Your task to perform on an android device: Open Yahoo.com Image 0: 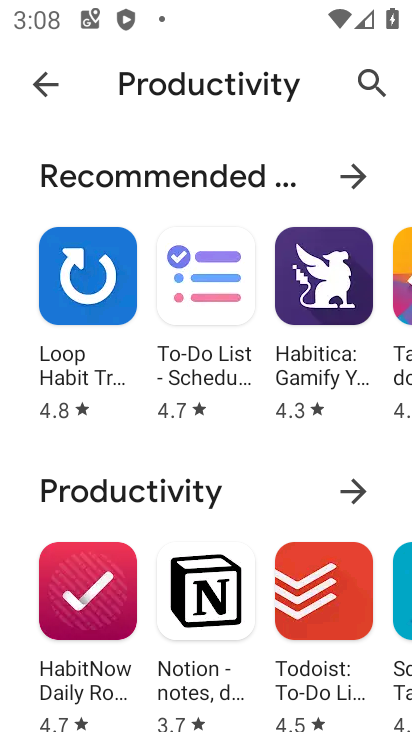
Step 0: press home button
Your task to perform on an android device: Open Yahoo.com Image 1: 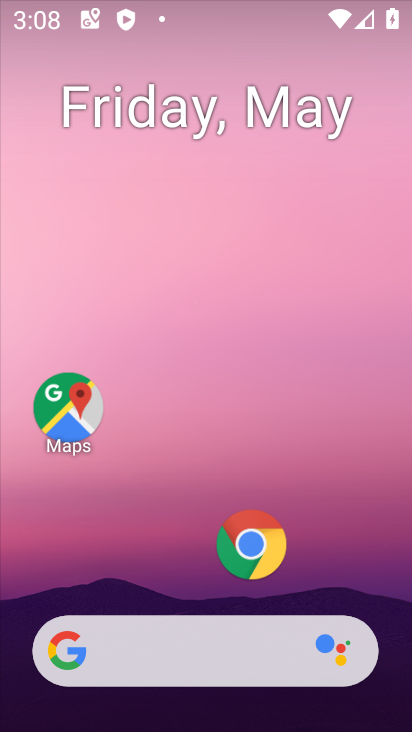
Step 1: click (242, 566)
Your task to perform on an android device: Open Yahoo.com Image 2: 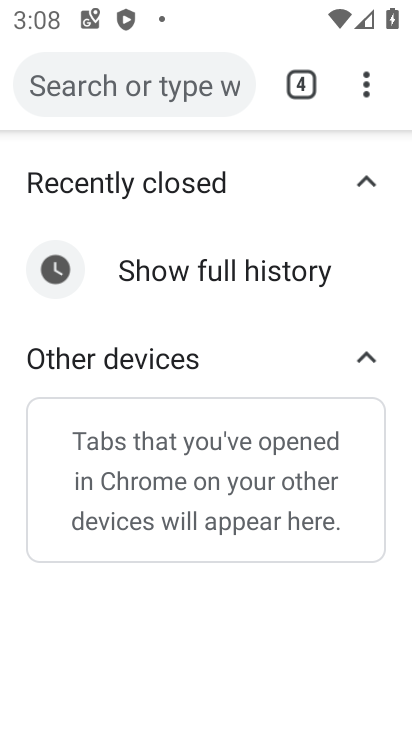
Step 2: click (299, 79)
Your task to perform on an android device: Open Yahoo.com Image 3: 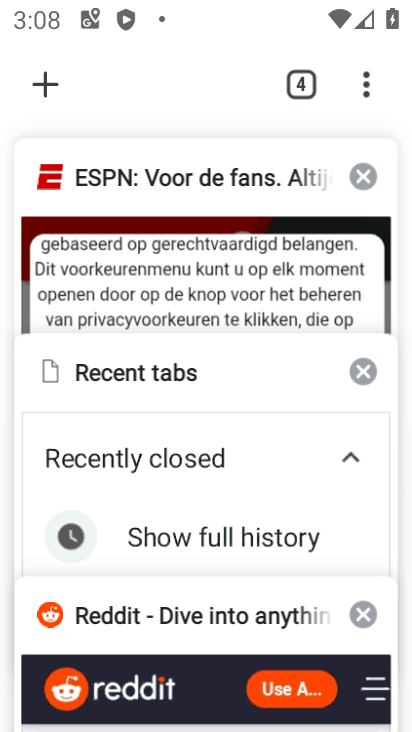
Step 3: click (47, 74)
Your task to perform on an android device: Open Yahoo.com Image 4: 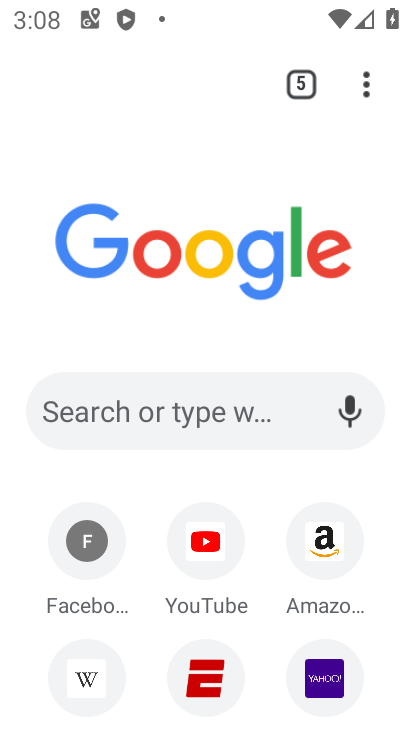
Step 4: click (325, 659)
Your task to perform on an android device: Open Yahoo.com Image 5: 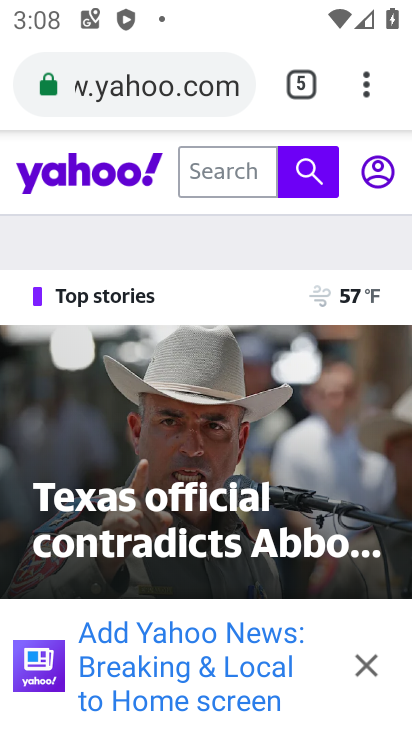
Step 5: task complete